Your task to perform on an android device: Go to settings Image 0: 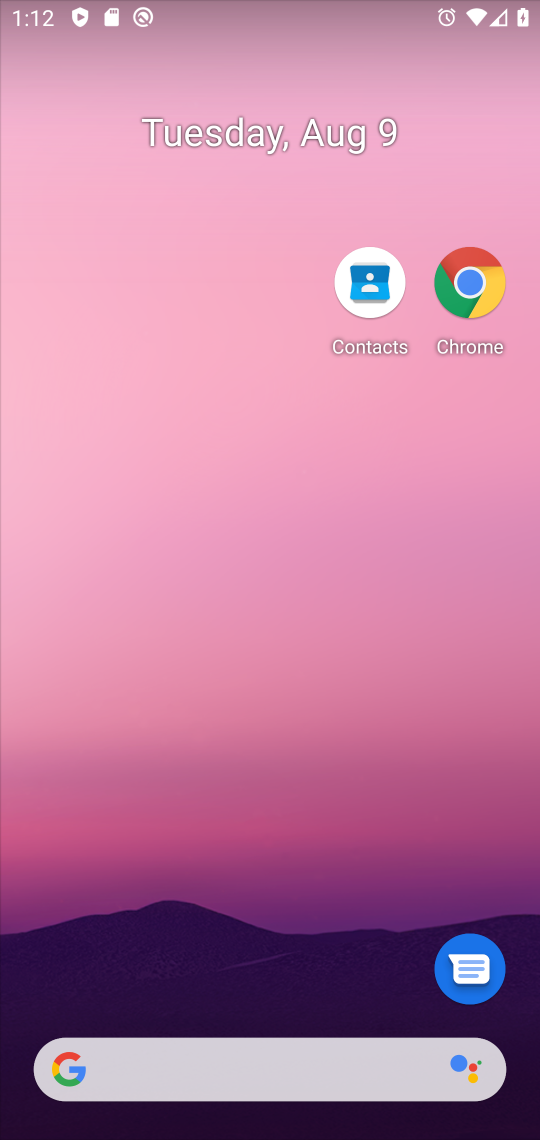
Step 0: drag from (360, 365) to (390, 170)
Your task to perform on an android device: Go to settings Image 1: 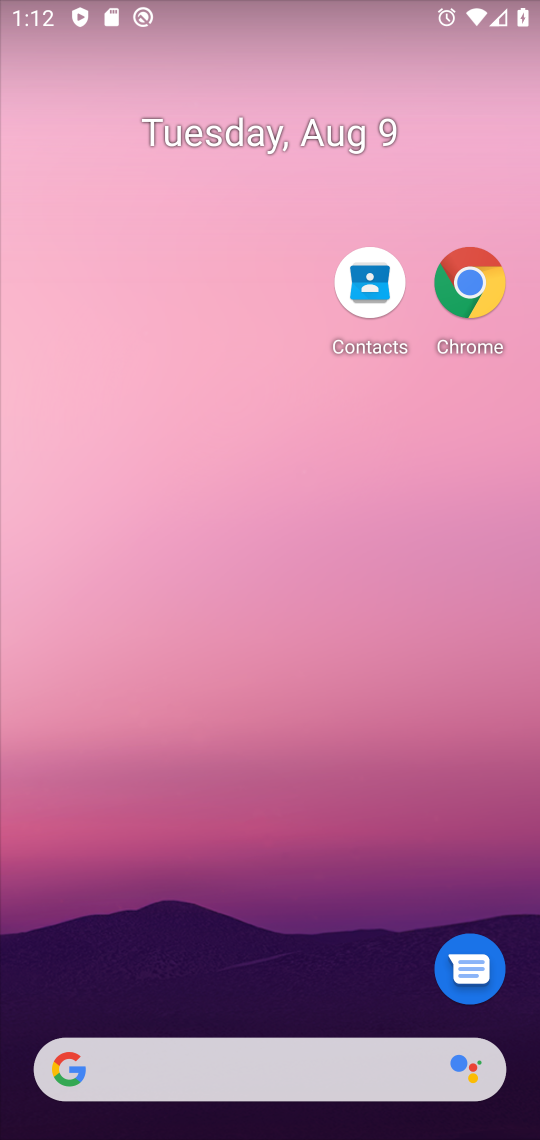
Step 1: drag from (250, 928) to (316, 73)
Your task to perform on an android device: Go to settings Image 2: 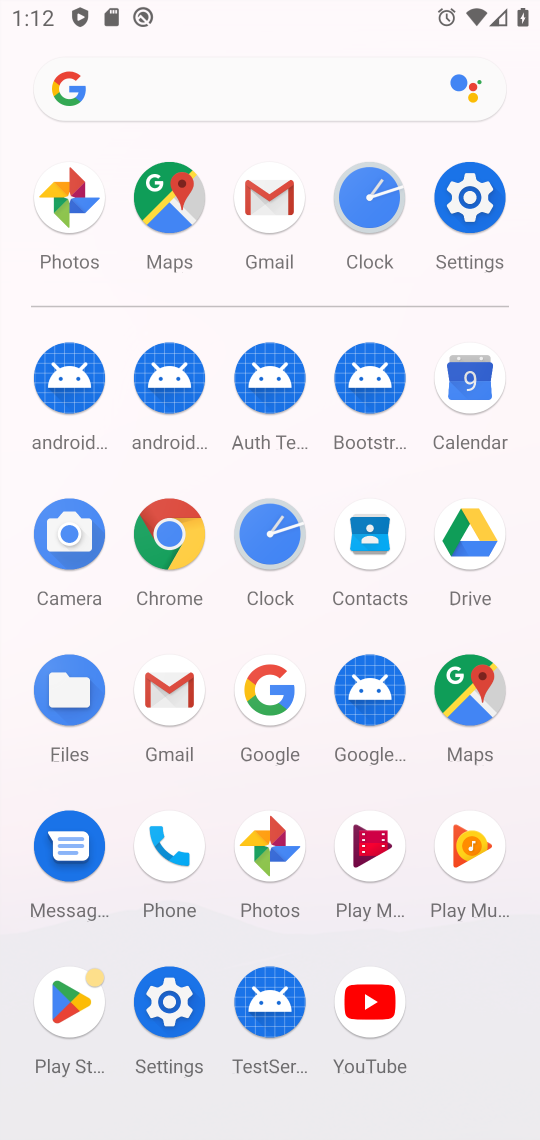
Step 2: click (468, 198)
Your task to perform on an android device: Go to settings Image 3: 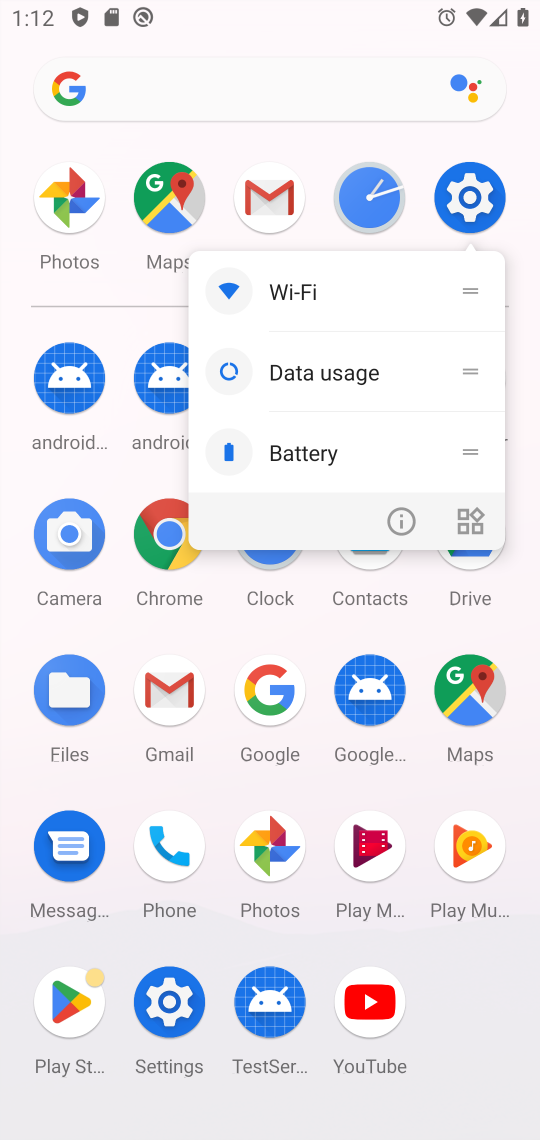
Step 3: click (394, 521)
Your task to perform on an android device: Go to settings Image 4: 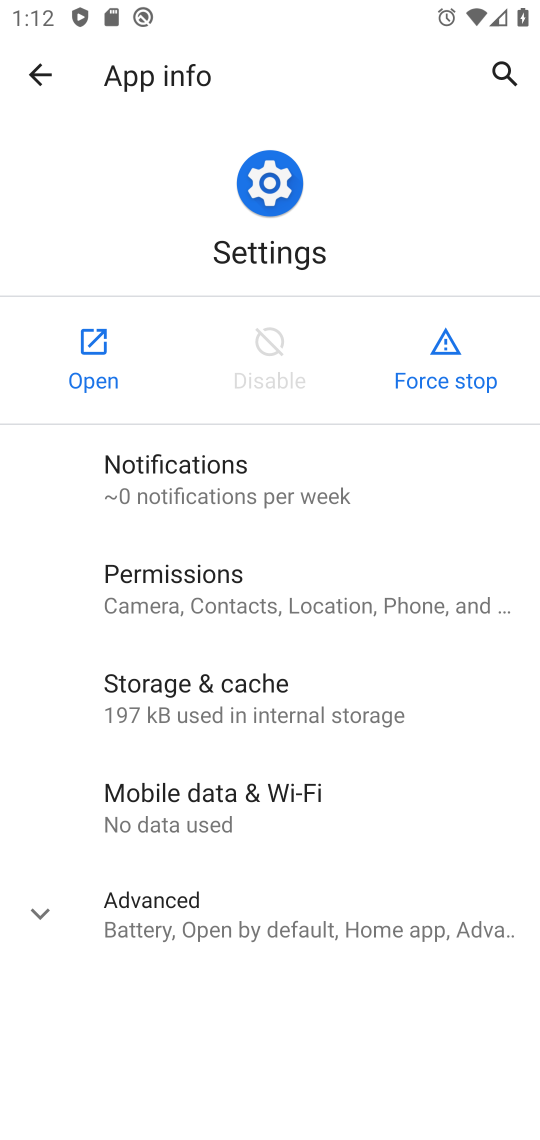
Step 4: click (110, 353)
Your task to perform on an android device: Go to settings Image 5: 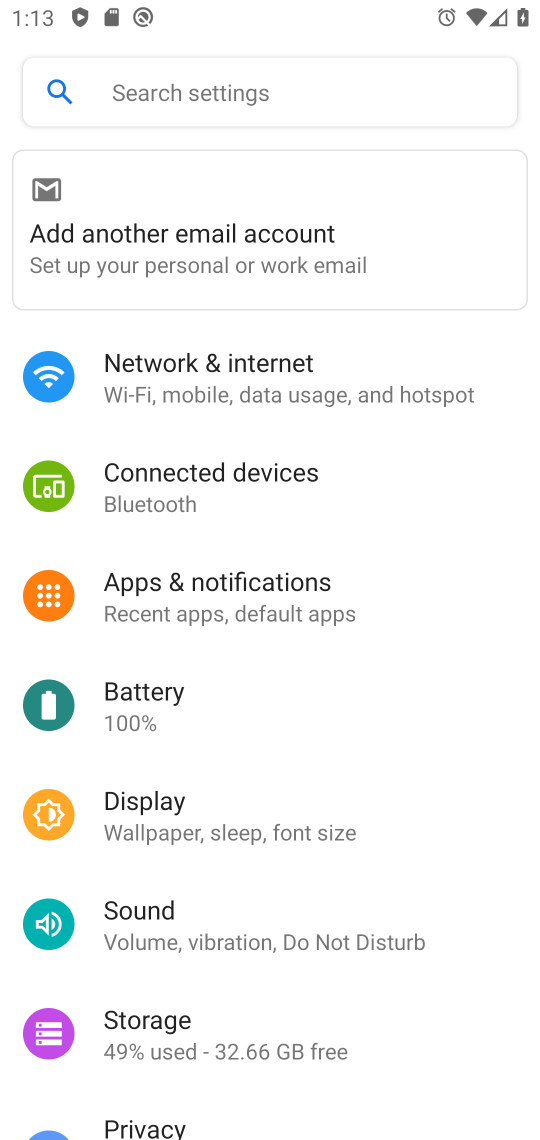
Step 5: drag from (265, 940) to (302, 267)
Your task to perform on an android device: Go to settings Image 6: 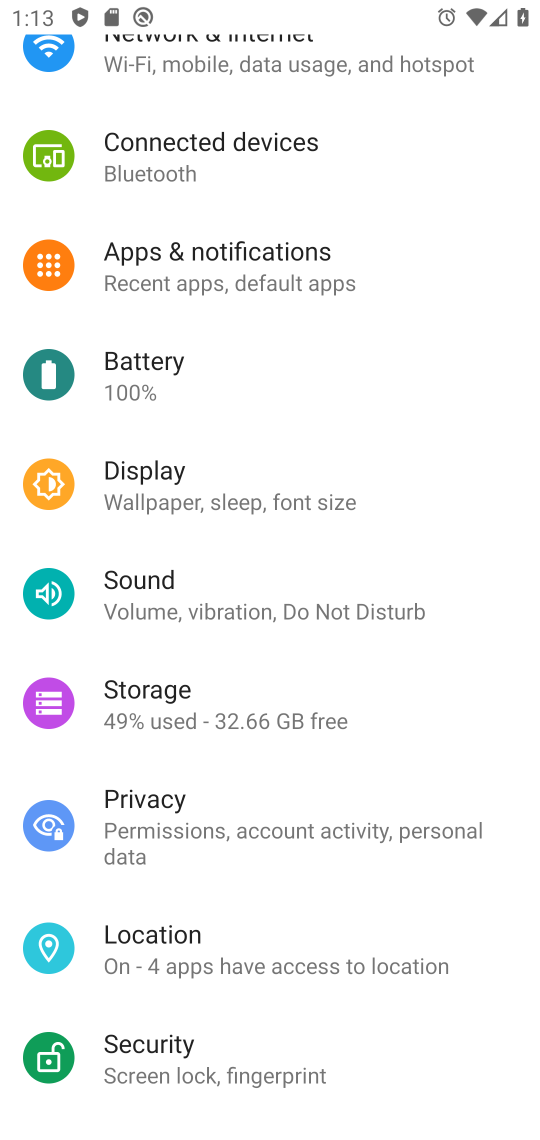
Step 6: drag from (225, 1056) to (353, 328)
Your task to perform on an android device: Go to settings Image 7: 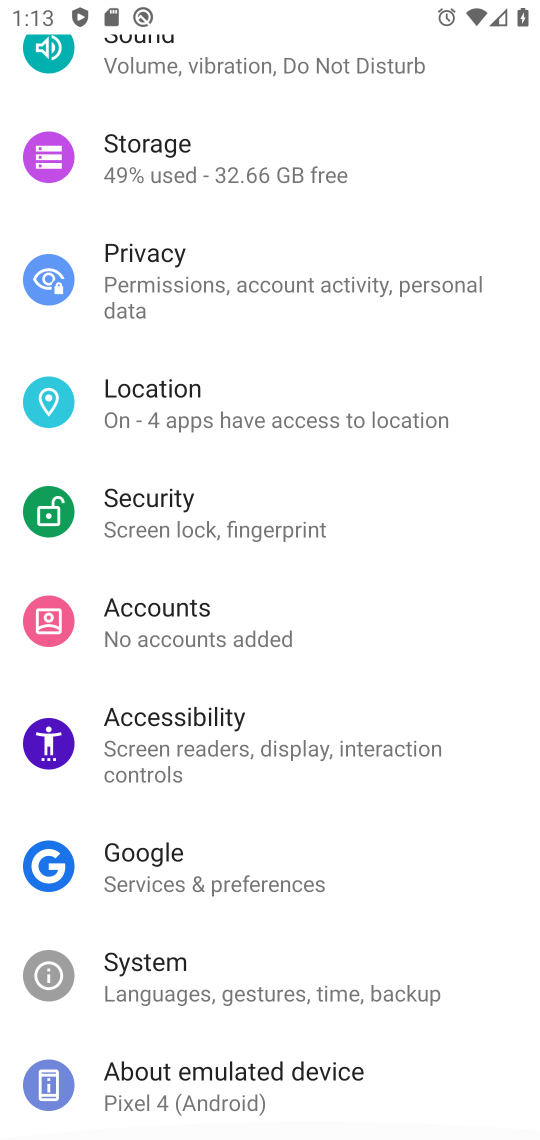
Step 7: drag from (291, 335) to (500, 62)
Your task to perform on an android device: Go to settings Image 8: 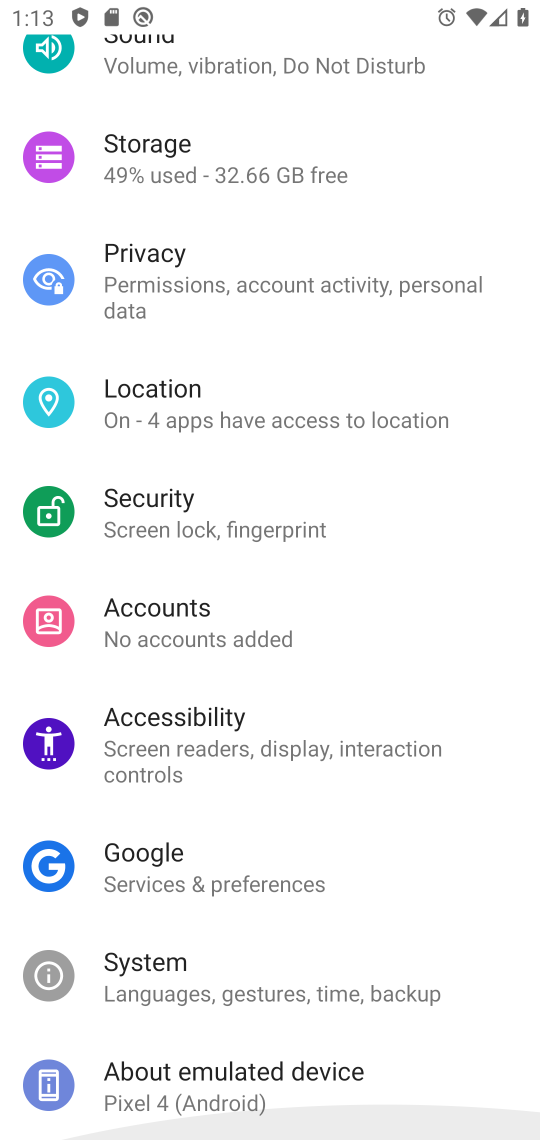
Step 8: drag from (307, 839) to (330, 178)
Your task to perform on an android device: Go to settings Image 9: 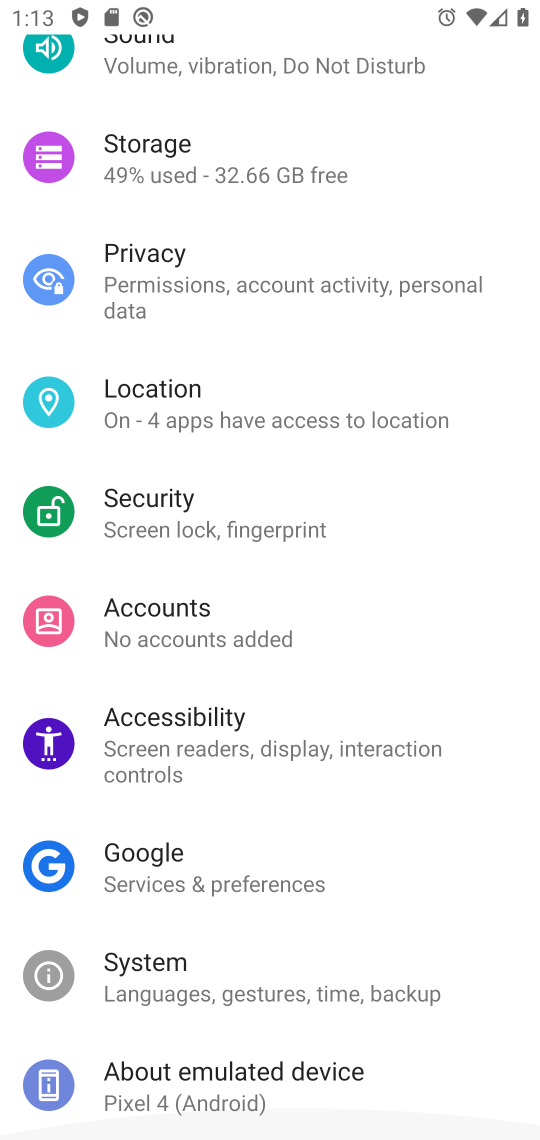
Step 9: click (316, 440)
Your task to perform on an android device: Go to settings Image 10: 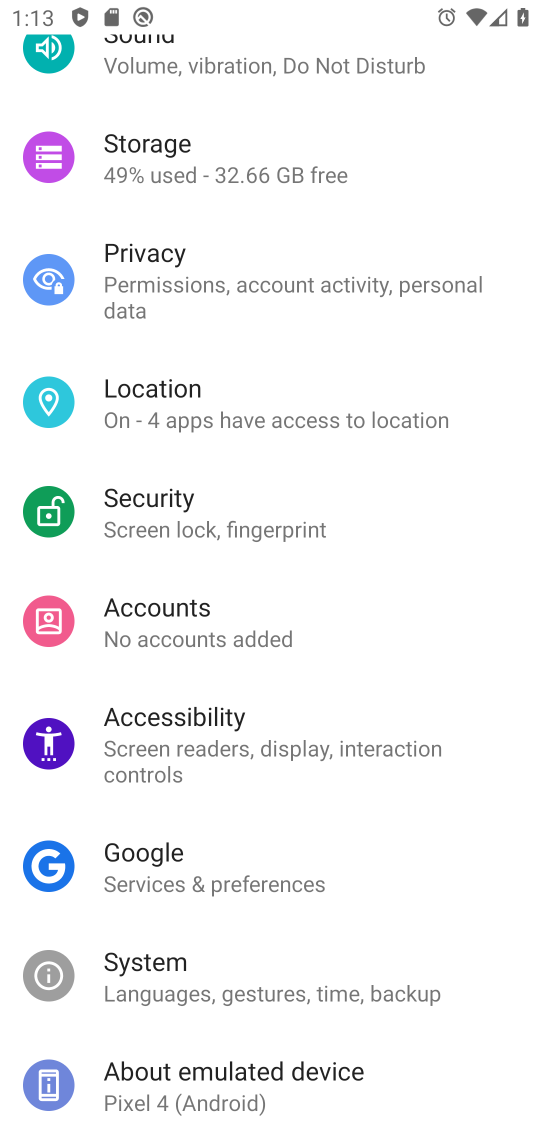
Step 10: drag from (326, 333) to (532, 1097)
Your task to perform on an android device: Go to settings Image 11: 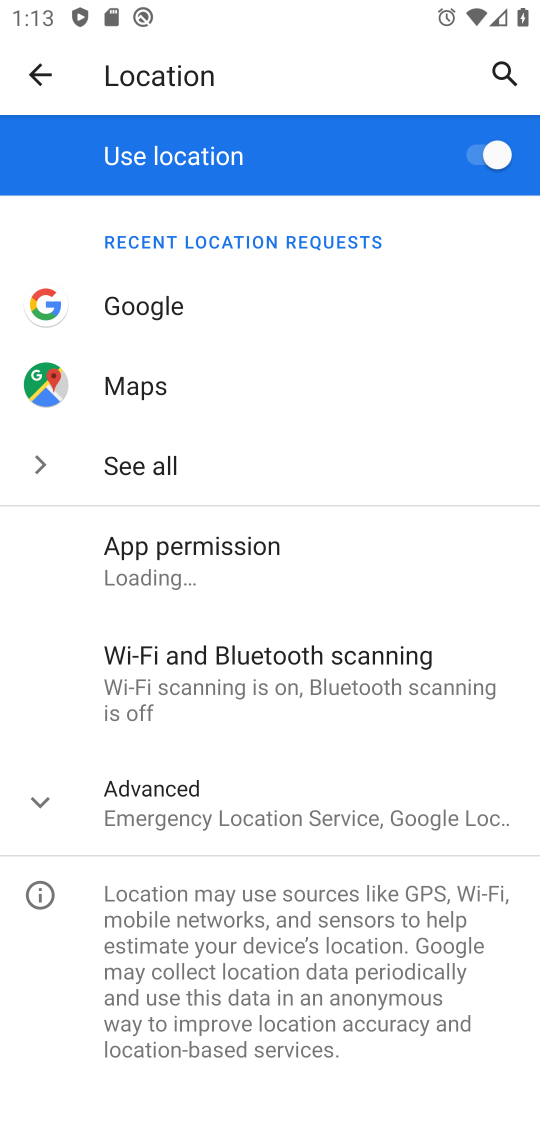
Step 11: click (48, 74)
Your task to perform on an android device: Go to settings Image 12: 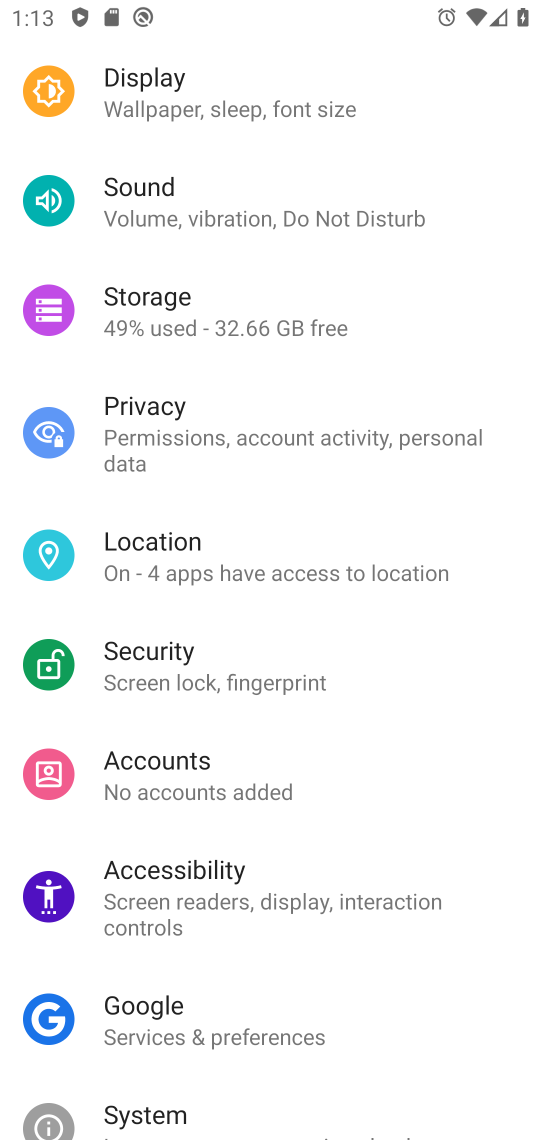
Step 12: task complete